Your task to perform on an android device: Open Maps and search for coffee Image 0: 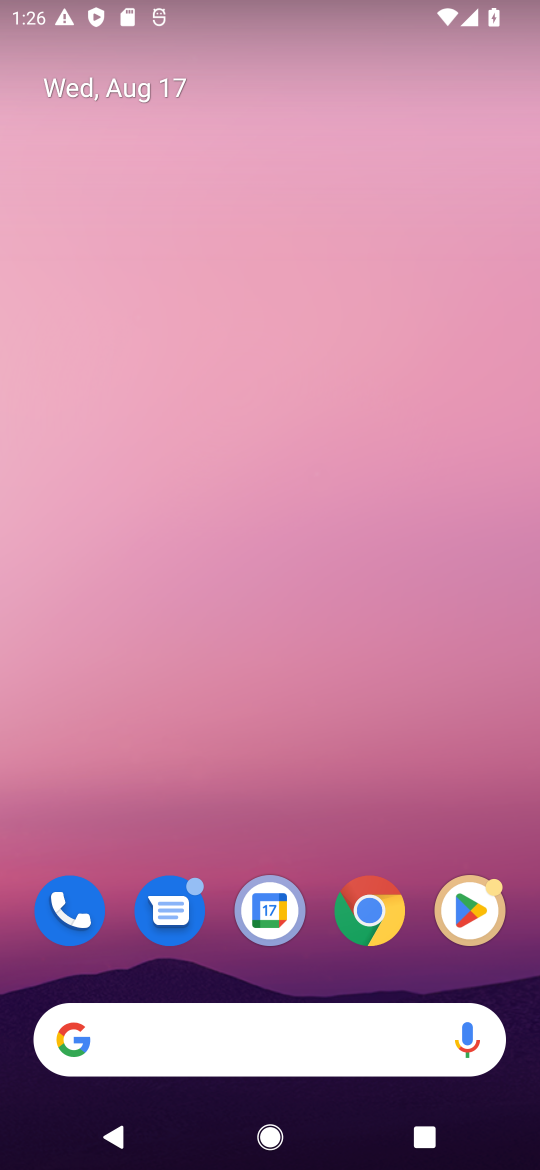
Step 0: drag from (269, 981) to (395, 22)
Your task to perform on an android device: Open Maps and search for coffee Image 1: 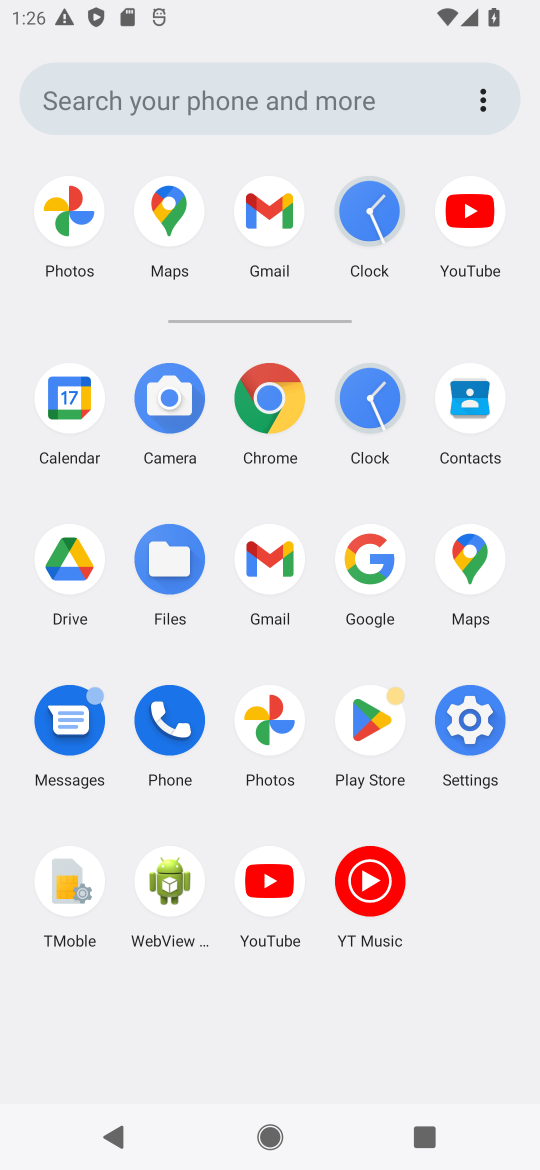
Step 1: click (454, 566)
Your task to perform on an android device: Open Maps and search for coffee Image 2: 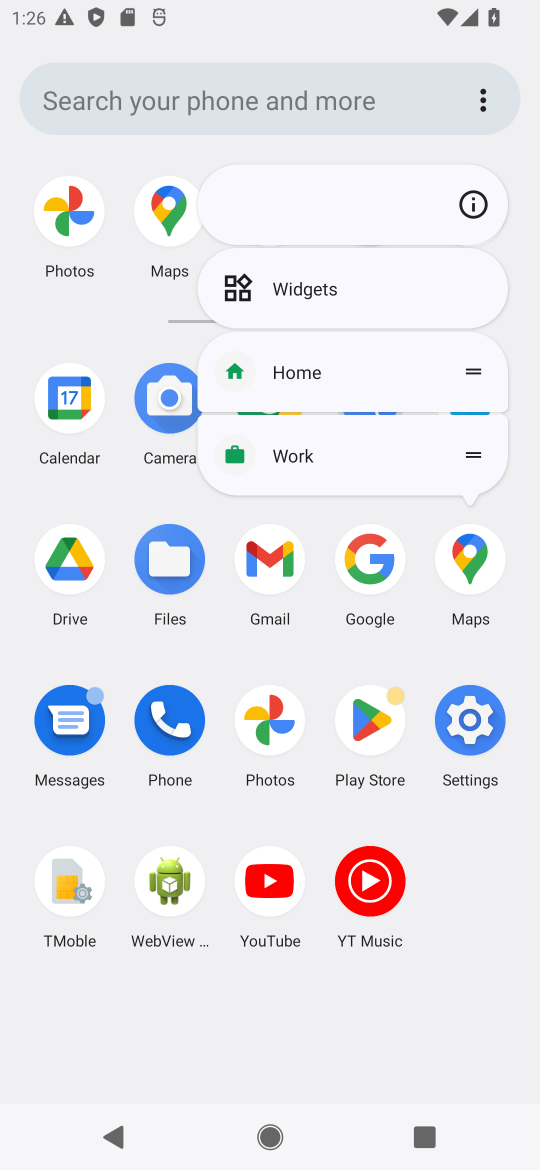
Step 2: click (475, 550)
Your task to perform on an android device: Open Maps and search for coffee Image 3: 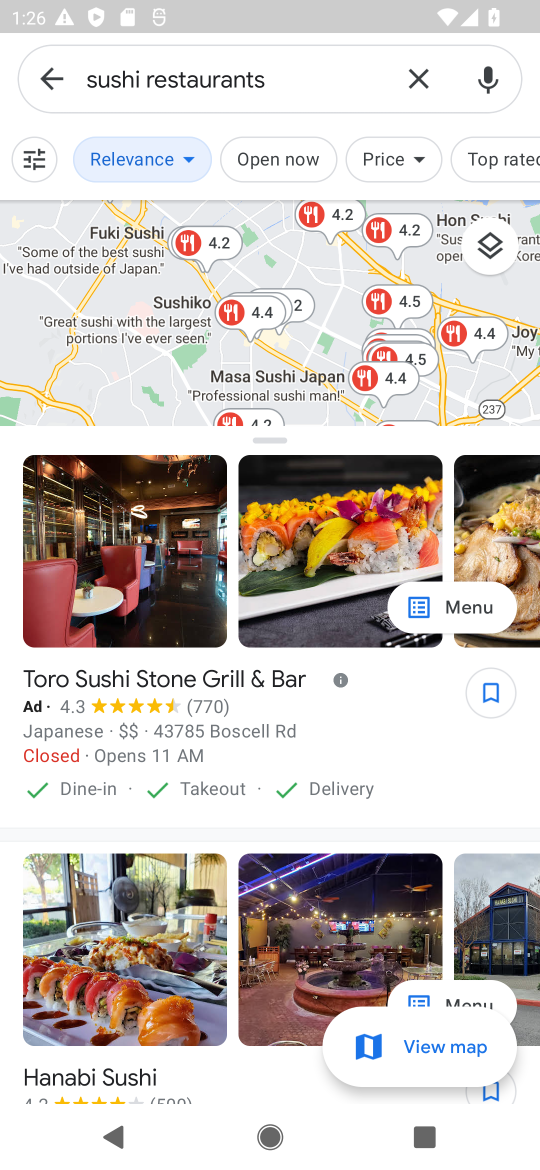
Step 3: click (416, 60)
Your task to perform on an android device: Open Maps and search for coffee Image 4: 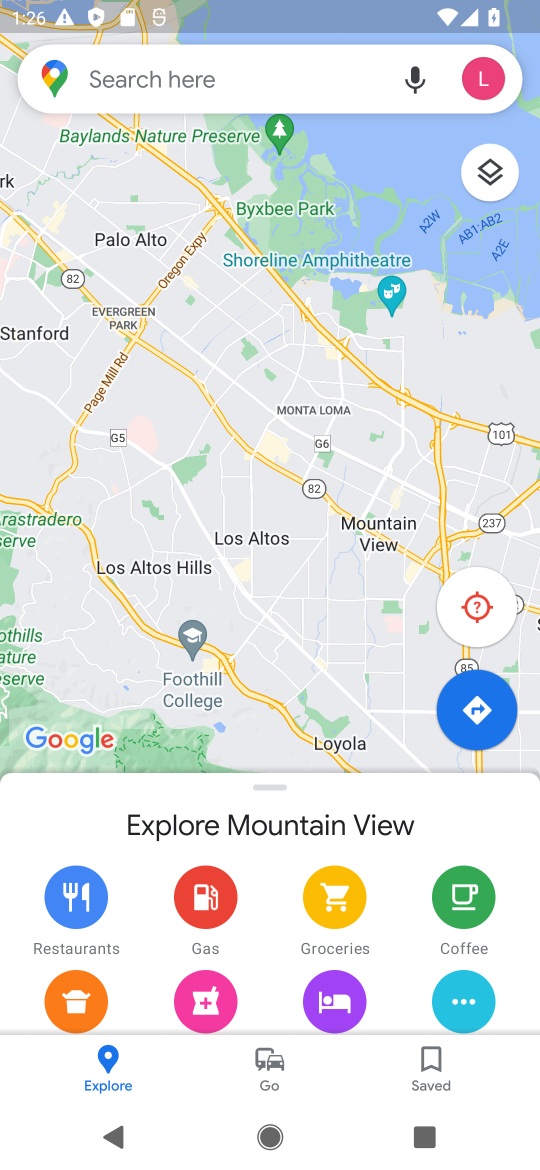
Step 4: click (212, 71)
Your task to perform on an android device: Open Maps and search for coffee Image 5: 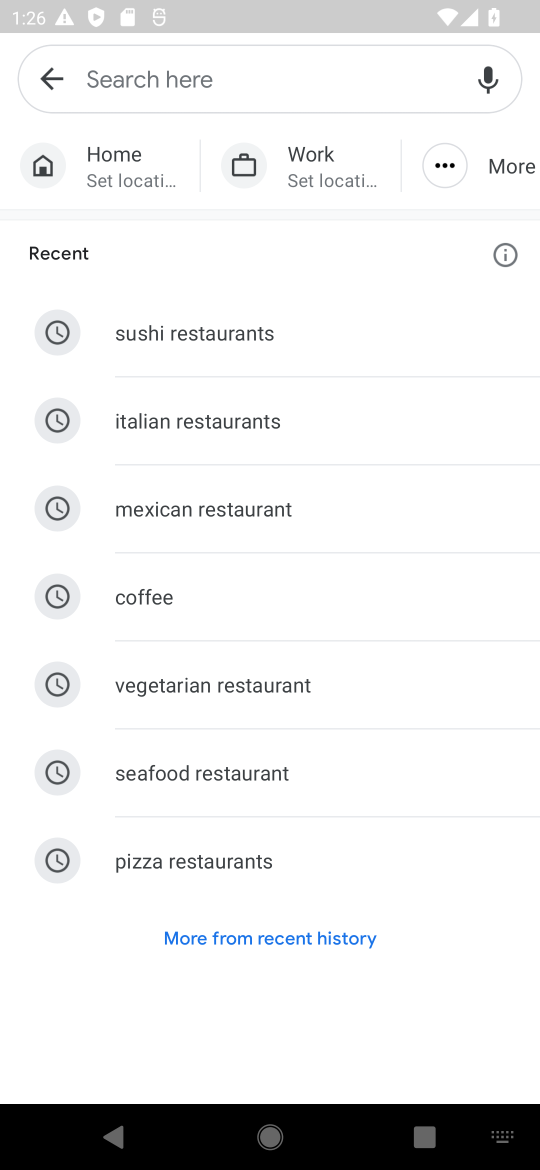
Step 5: click (138, 566)
Your task to perform on an android device: Open Maps and search for coffee Image 6: 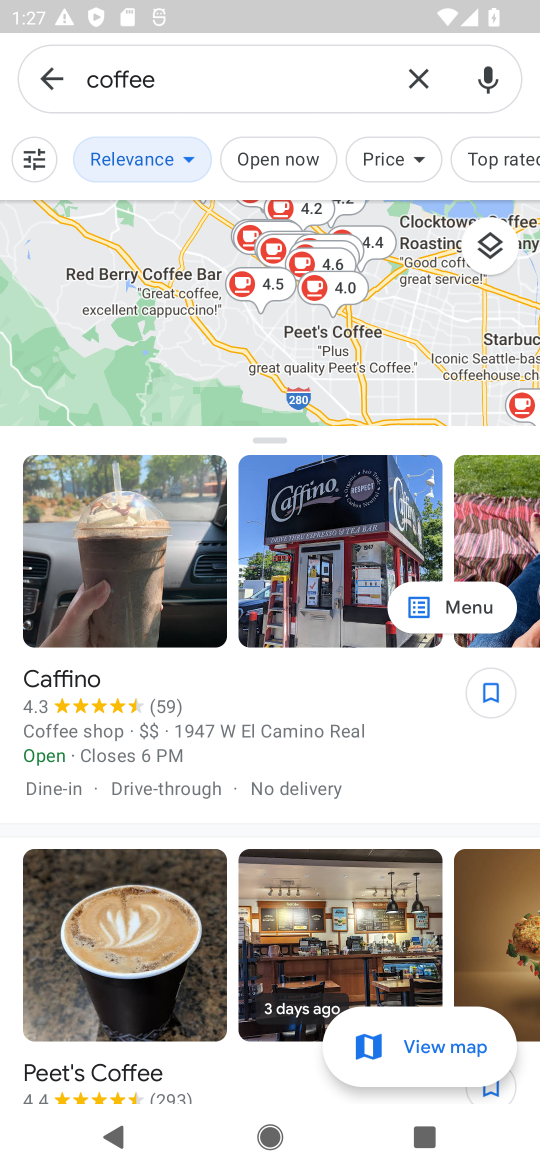
Step 6: task complete